Your task to perform on an android device: Open Google Chrome and open the bookmarks view Image 0: 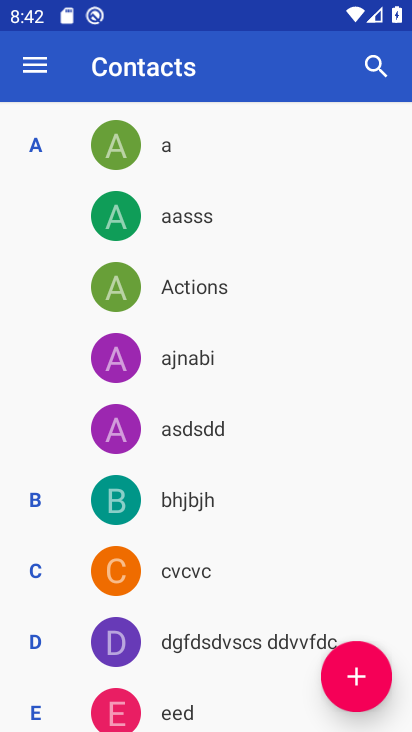
Step 0: press home button
Your task to perform on an android device: Open Google Chrome and open the bookmarks view Image 1: 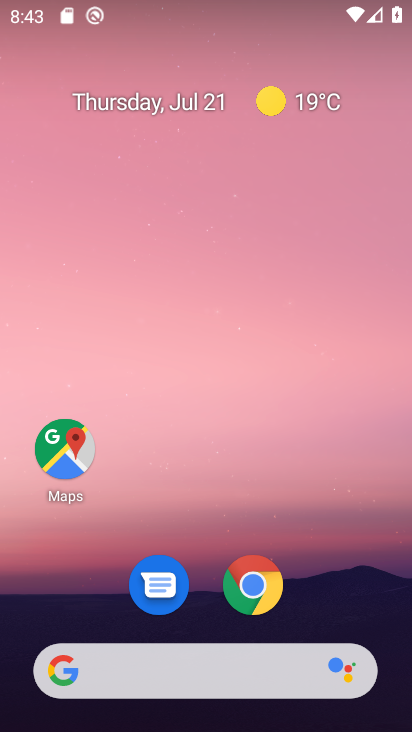
Step 1: click (257, 591)
Your task to perform on an android device: Open Google Chrome and open the bookmarks view Image 2: 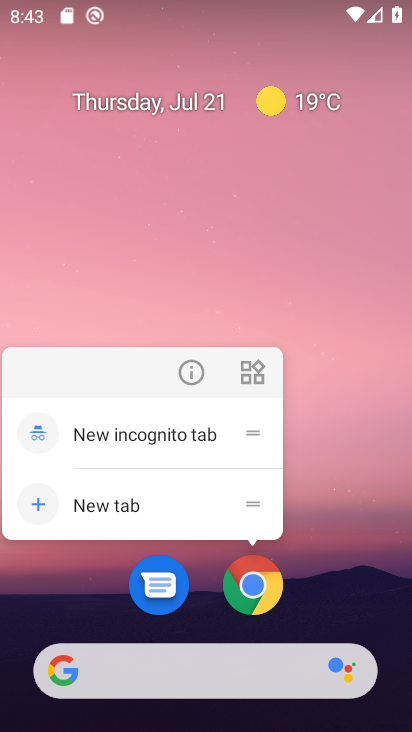
Step 2: click (255, 590)
Your task to perform on an android device: Open Google Chrome and open the bookmarks view Image 3: 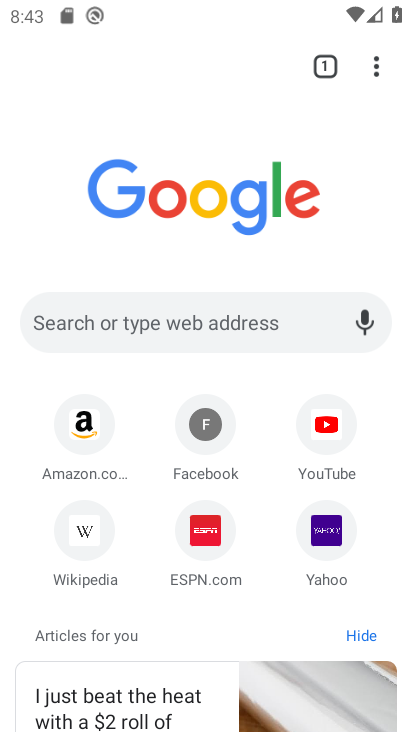
Step 3: click (372, 69)
Your task to perform on an android device: Open Google Chrome and open the bookmarks view Image 4: 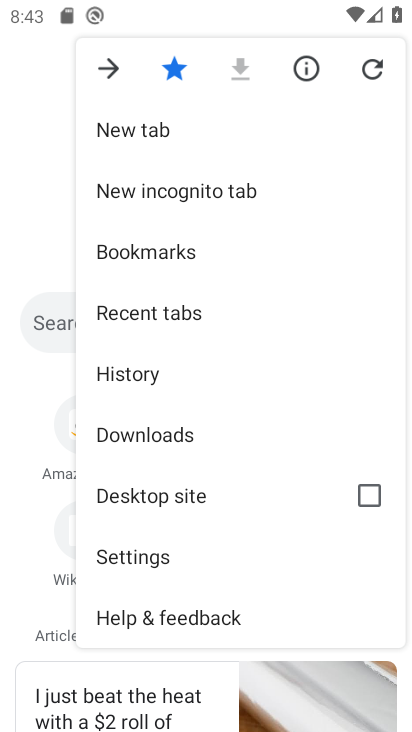
Step 4: click (184, 246)
Your task to perform on an android device: Open Google Chrome and open the bookmarks view Image 5: 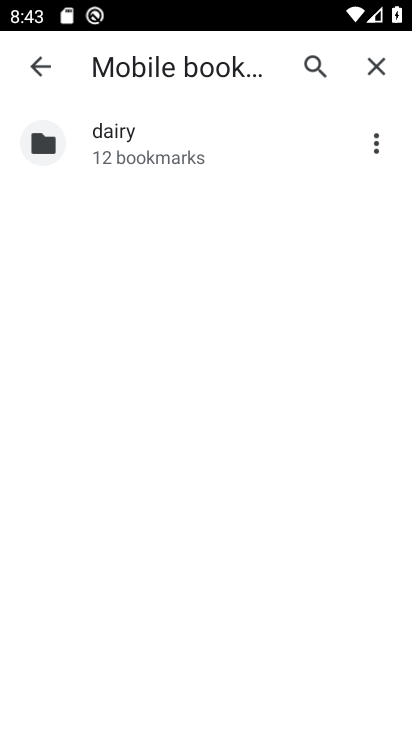
Step 5: click (177, 151)
Your task to perform on an android device: Open Google Chrome and open the bookmarks view Image 6: 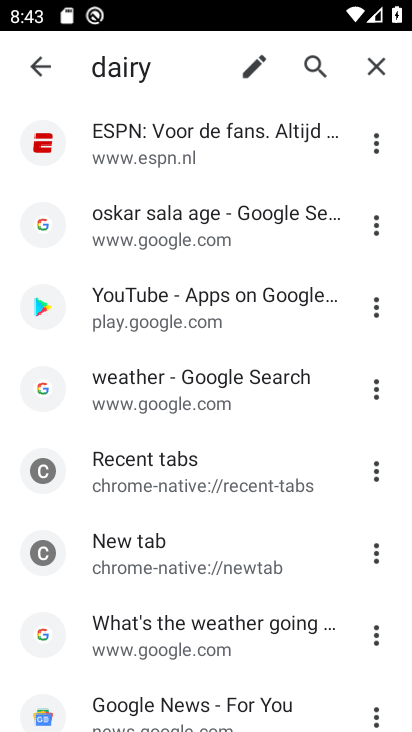
Step 6: task complete